Your task to perform on an android device: turn pop-ups on in chrome Image 0: 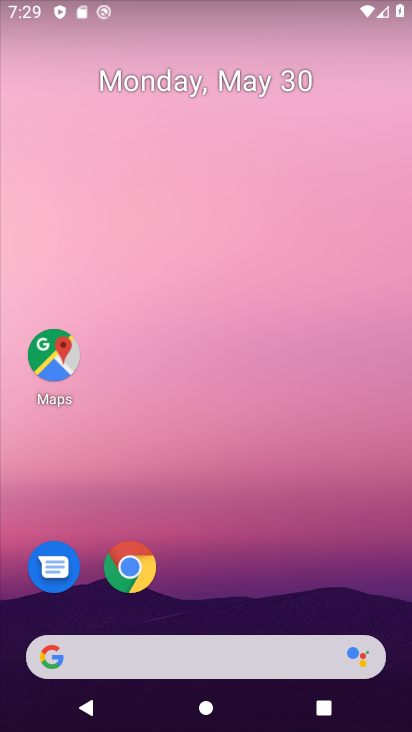
Step 0: drag from (233, 604) to (232, 474)
Your task to perform on an android device: turn pop-ups on in chrome Image 1: 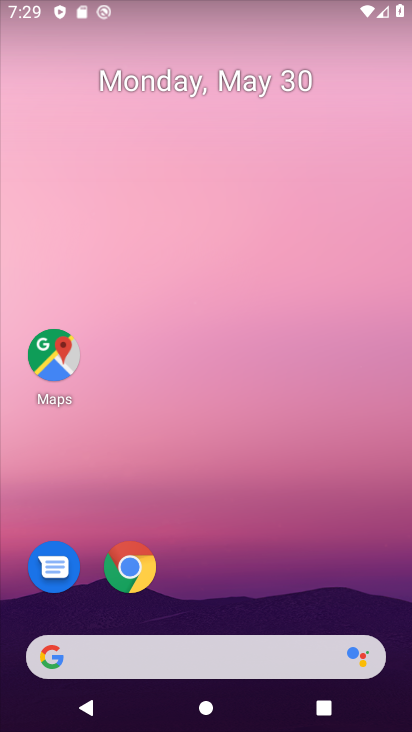
Step 1: click (144, 551)
Your task to perform on an android device: turn pop-ups on in chrome Image 2: 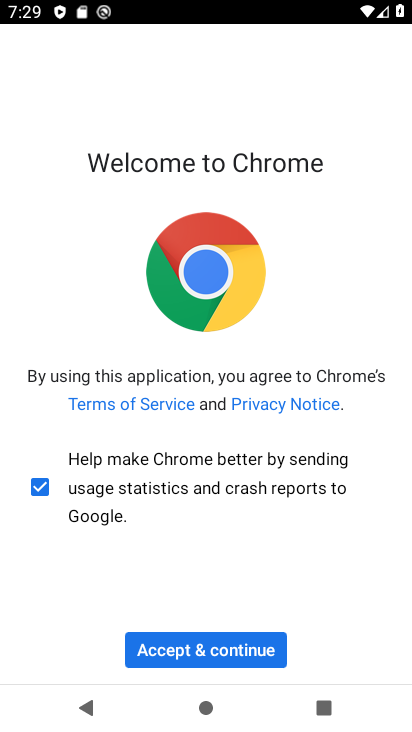
Step 2: click (211, 660)
Your task to perform on an android device: turn pop-ups on in chrome Image 3: 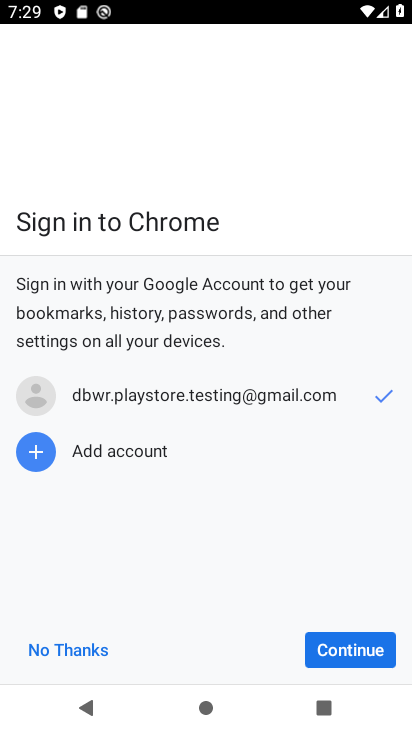
Step 3: click (329, 645)
Your task to perform on an android device: turn pop-ups on in chrome Image 4: 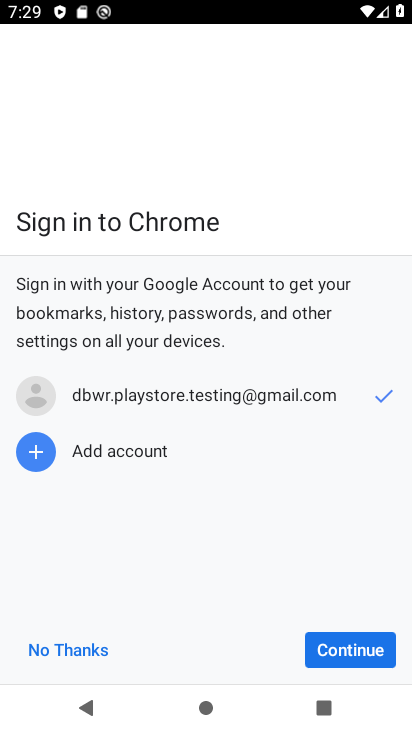
Step 4: click (329, 645)
Your task to perform on an android device: turn pop-ups on in chrome Image 5: 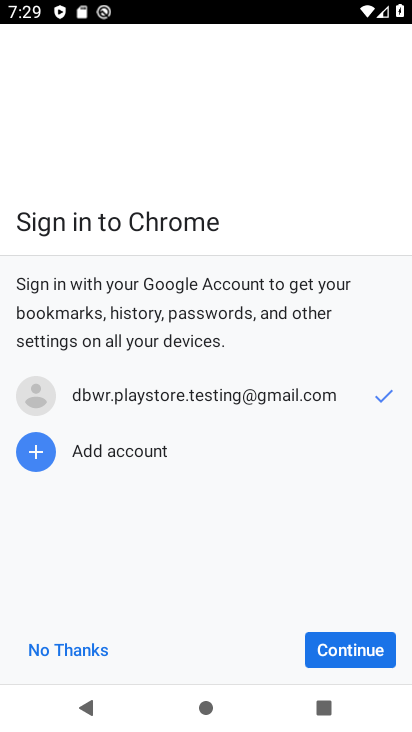
Step 5: click (329, 645)
Your task to perform on an android device: turn pop-ups on in chrome Image 6: 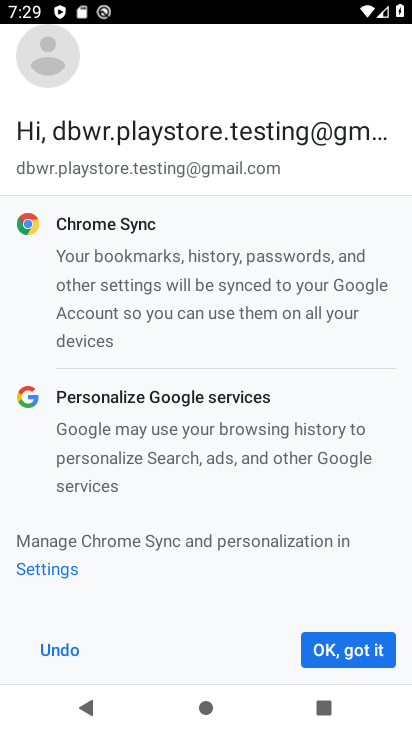
Step 6: click (329, 645)
Your task to perform on an android device: turn pop-ups on in chrome Image 7: 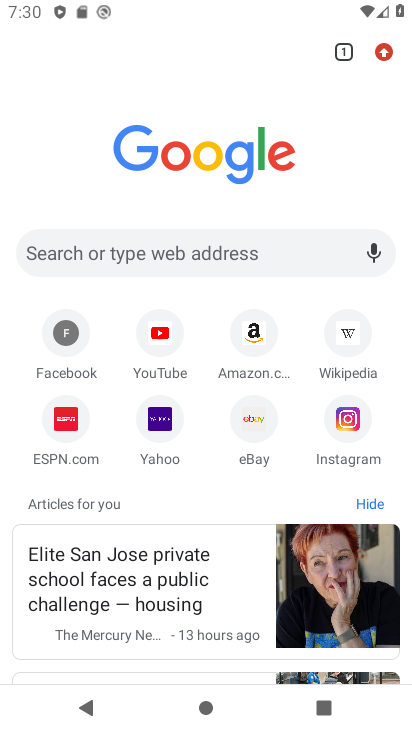
Step 7: task complete